Your task to perform on an android device: delete a single message in the gmail app Image 0: 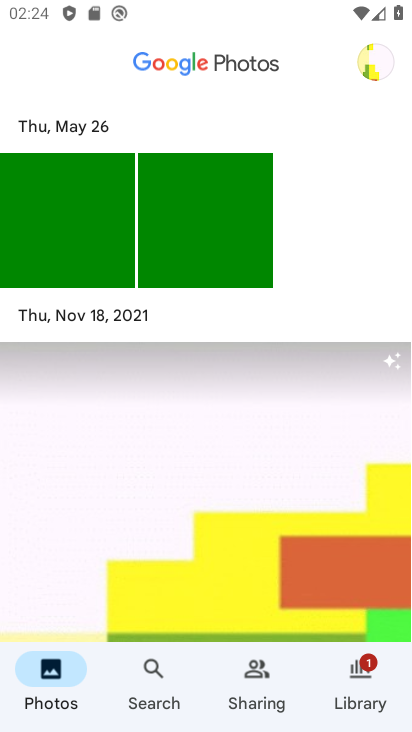
Step 0: press home button
Your task to perform on an android device: delete a single message in the gmail app Image 1: 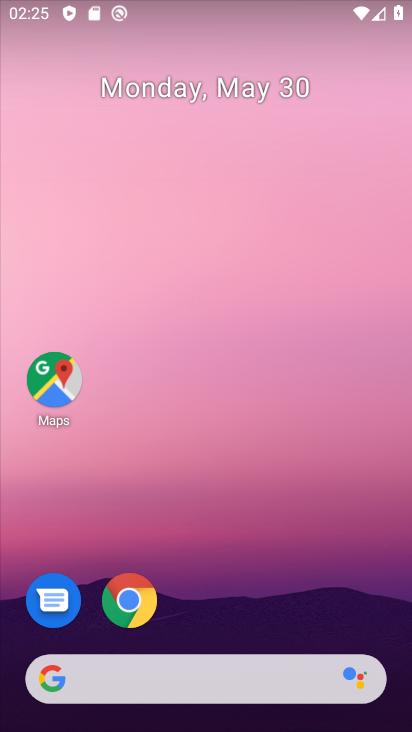
Step 1: drag from (228, 592) to (320, 23)
Your task to perform on an android device: delete a single message in the gmail app Image 2: 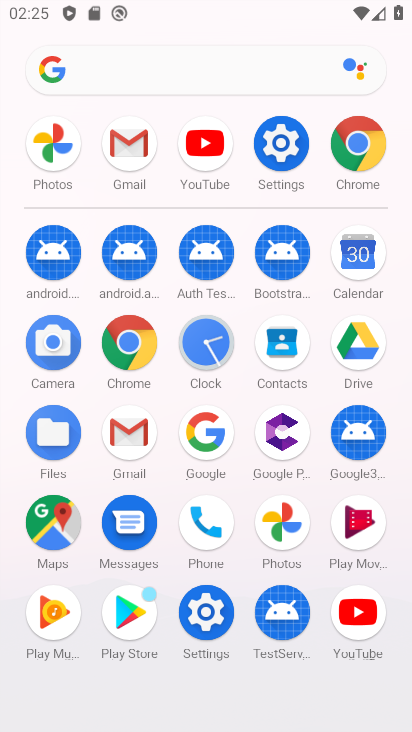
Step 2: click (128, 147)
Your task to perform on an android device: delete a single message in the gmail app Image 3: 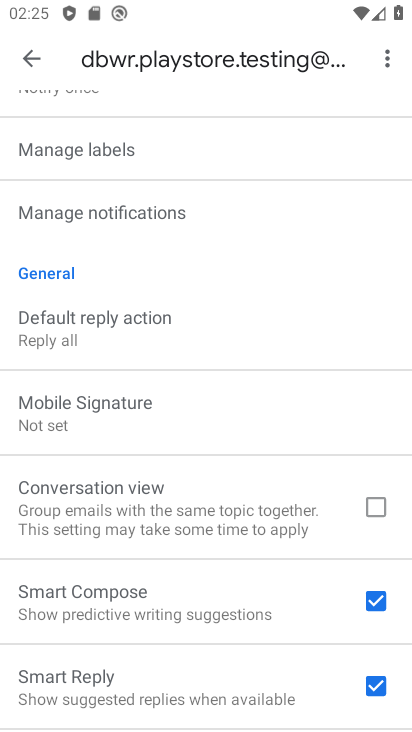
Step 3: click (37, 56)
Your task to perform on an android device: delete a single message in the gmail app Image 4: 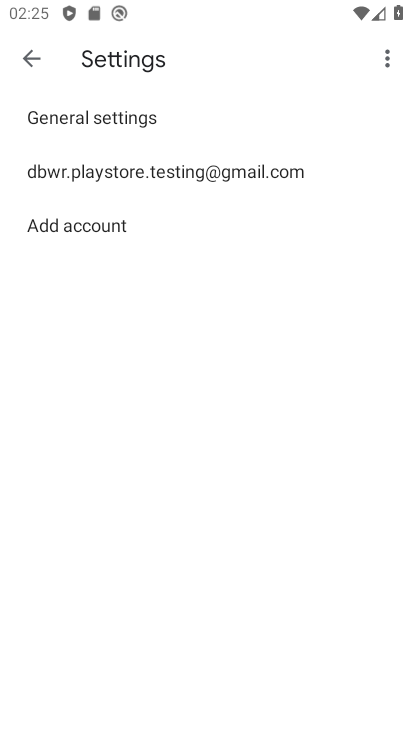
Step 4: click (26, 52)
Your task to perform on an android device: delete a single message in the gmail app Image 5: 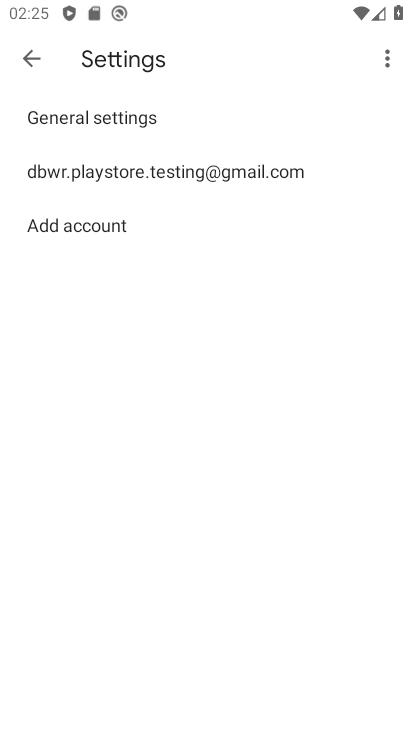
Step 5: click (34, 56)
Your task to perform on an android device: delete a single message in the gmail app Image 6: 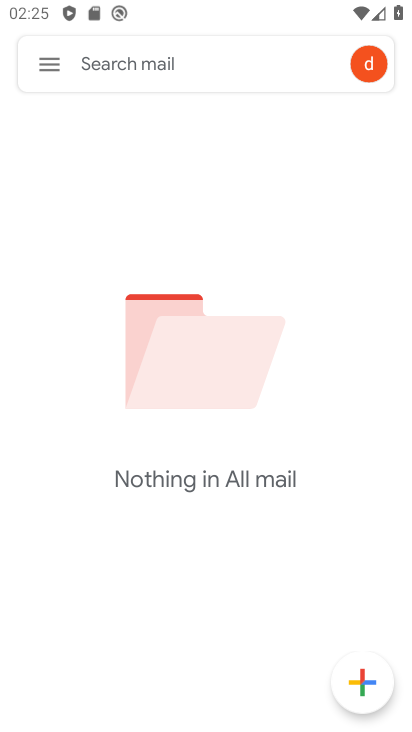
Step 6: task complete